Your task to perform on an android device: uninstall "Gmail" Image 0: 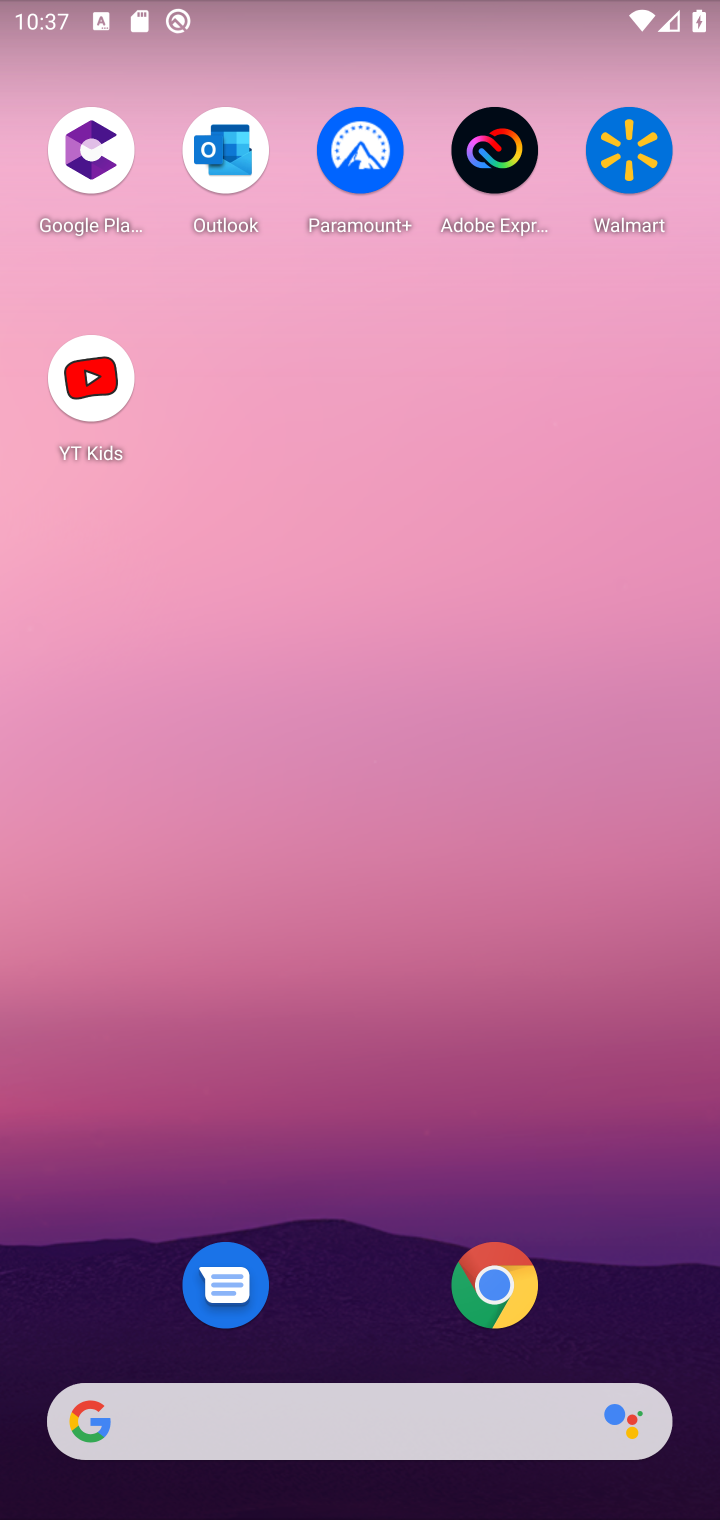
Step 0: drag from (411, 1358) to (411, 362)
Your task to perform on an android device: uninstall "Gmail" Image 1: 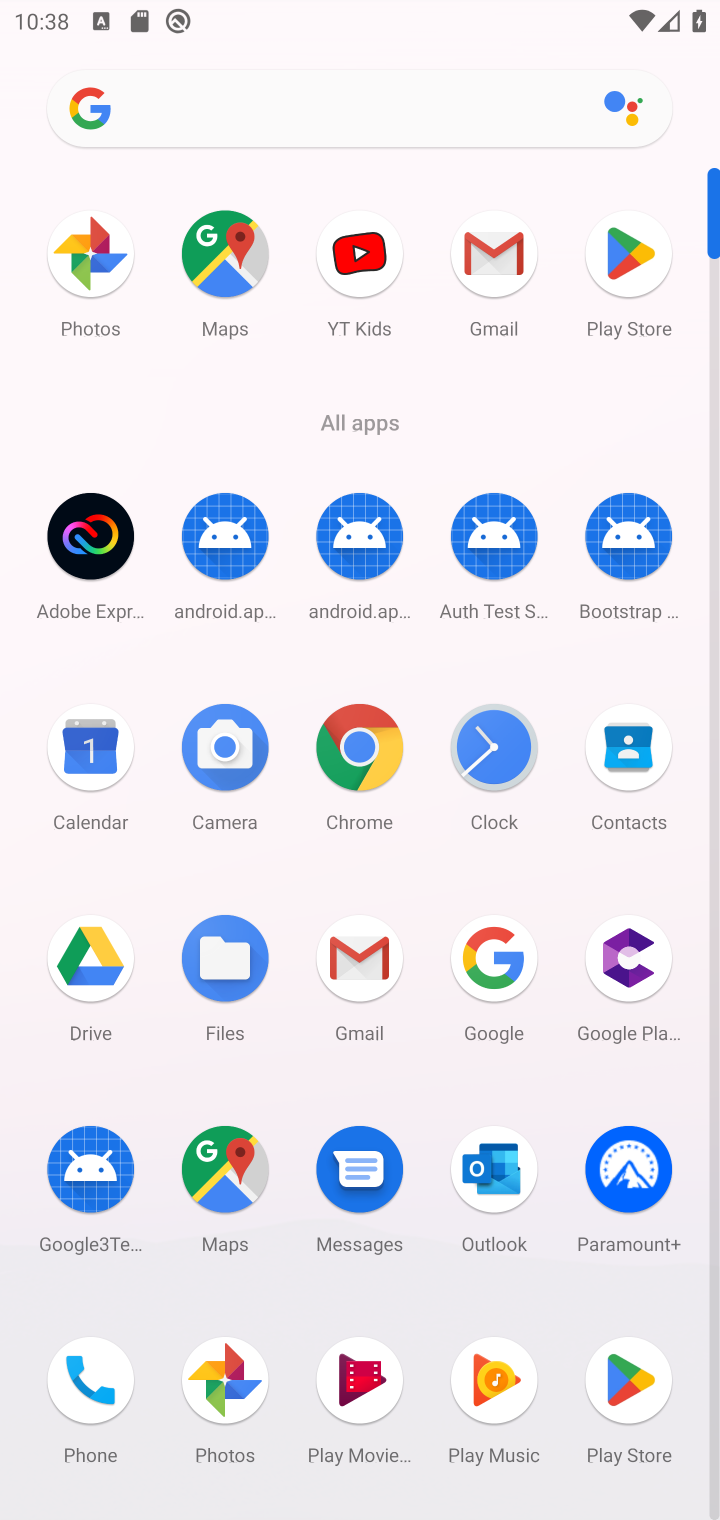
Step 1: task complete